Your task to perform on an android device: turn off airplane mode Image 0: 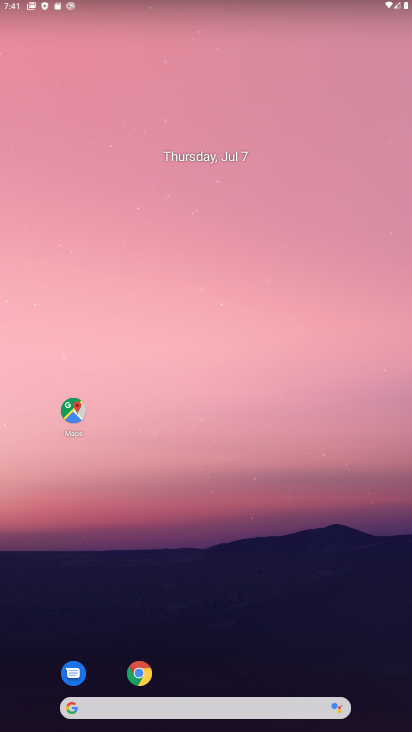
Step 0: drag from (206, 699) to (140, 5)
Your task to perform on an android device: turn off airplane mode Image 1: 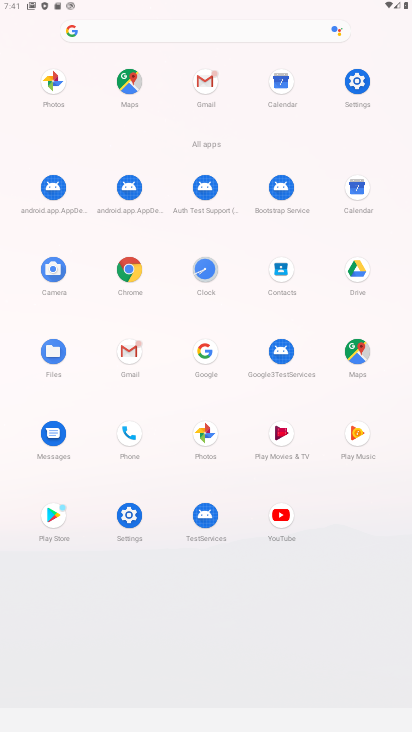
Step 1: click (126, 521)
Your task to perform on an android device: turn off airplane mode Image 2: 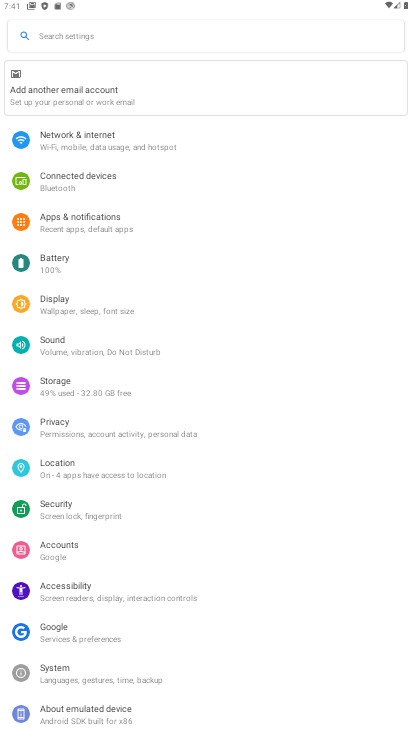
Step 2: click (79, 151)
Your task to perform on an android device: turn off airplane mode Image 3: 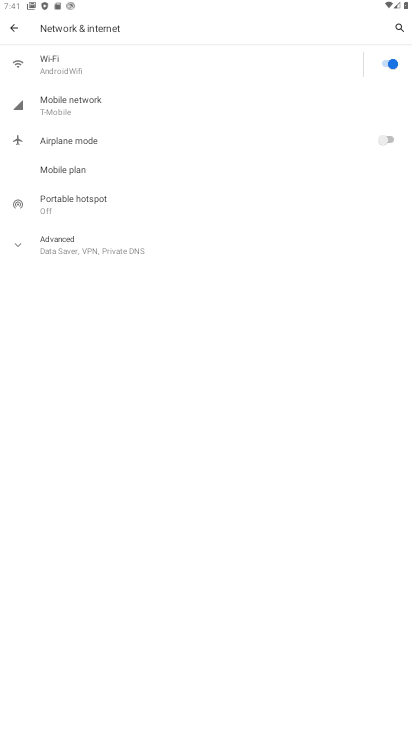
Step 3: task complete